Your task to perform on an android device: Go to battery settings Image 0: 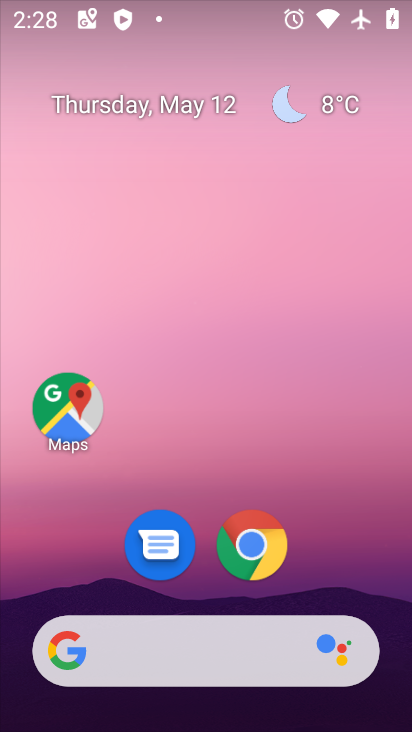
Step 0: drag from (392, 627) to (261, 109)
Your task to perform on an android device: Go to battery settings Image 1: 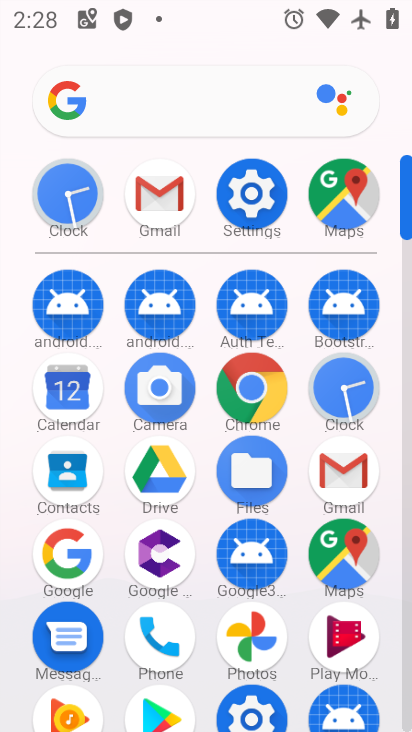
Step 1: click (408, 696)
Your task to perform on an android device: Go to battery settings Image 2: 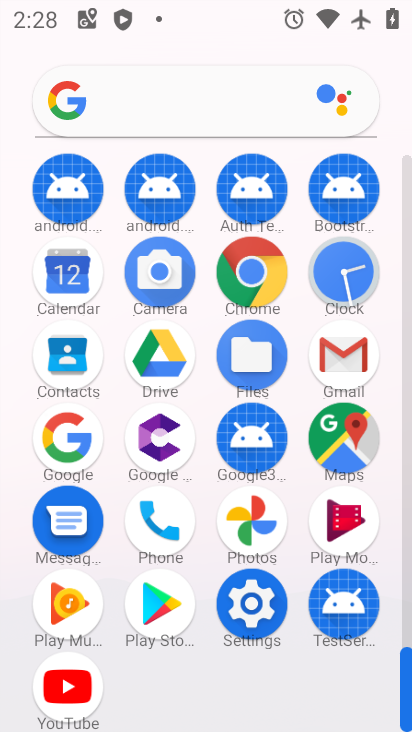
Step 2: click (249, 604)
Your task to perform on an android device: Go to battery settings Image 3: 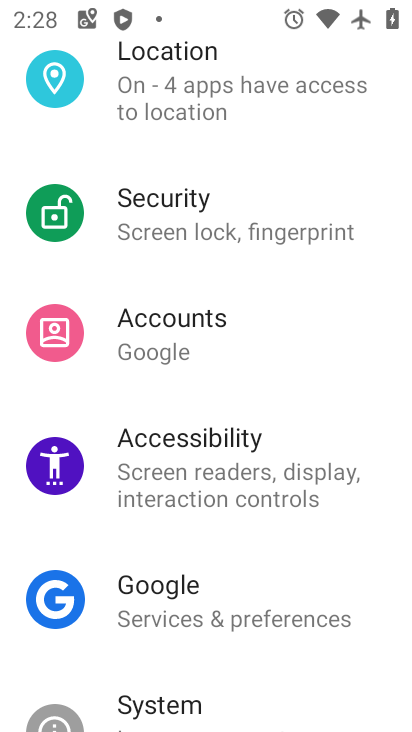
Step 3: drag from (342, 181) to (353, 465)
Your task to perform on an android device: Go to battery settings Image 4: 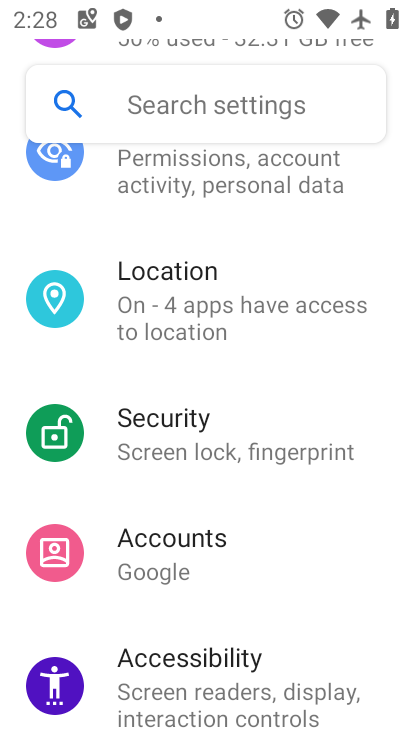
Step 4: drag from (358, 209) to (353, 453)
Your task to perform on an android device: Go to battery settings Image 5: 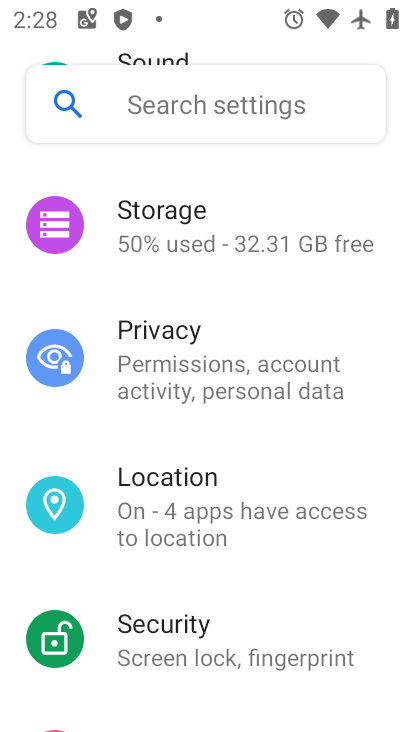
Step 5: drag from (361, 209) to (359, 463)
Your task to perform on an android device: Go to battery settings Image 6: 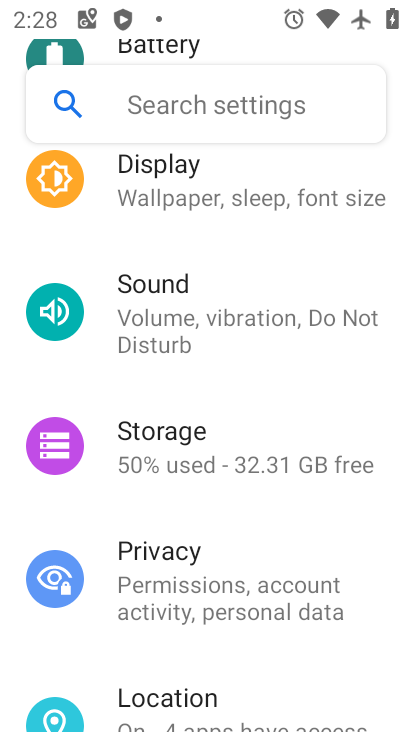
Step 6: drag from (347, 242) to (327, 502)
Your task to perform on an android device: Go to battery settings Image 7: 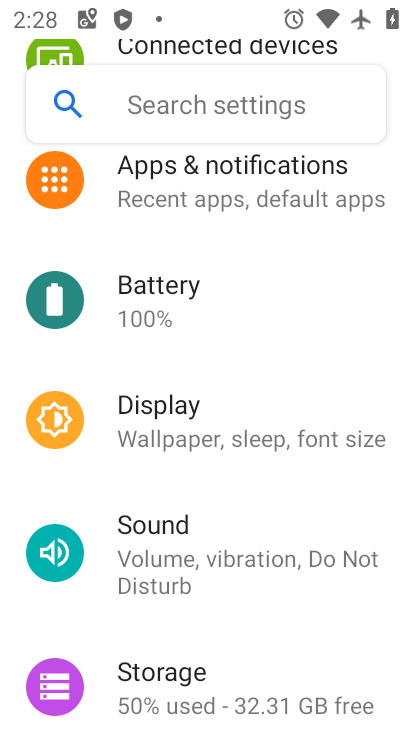
Step 7: click (145, 294)
Your task to perform on an android device: Go to battery settings Image 8: 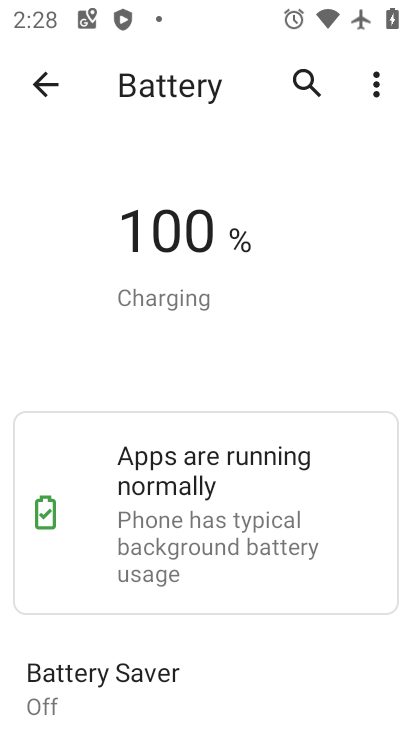
Step 8: task complete